Your task to perform on an android device: Search for sushi restaurants on Maps Image 0: 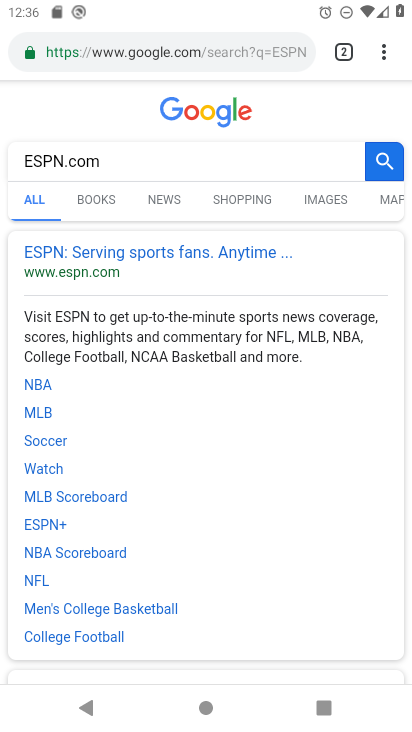
Step 0: press home button
Your task to perform on an android device: Search for sushi restaurants on Maps Image 1: 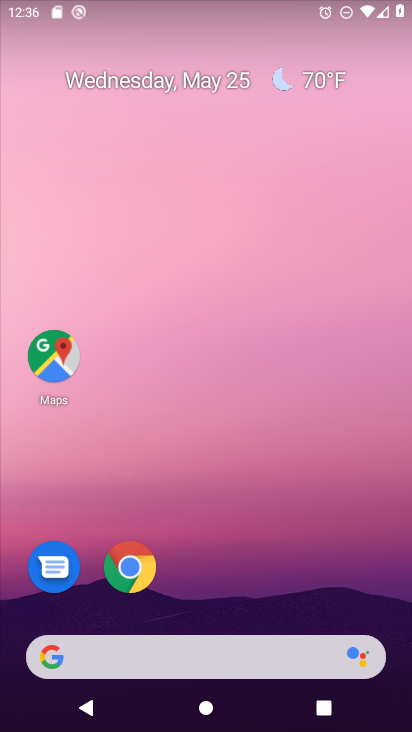
Step 1: click (58, 353)
Your task to perform on an android device: Search for sushi restaurants on Maps Image 2: 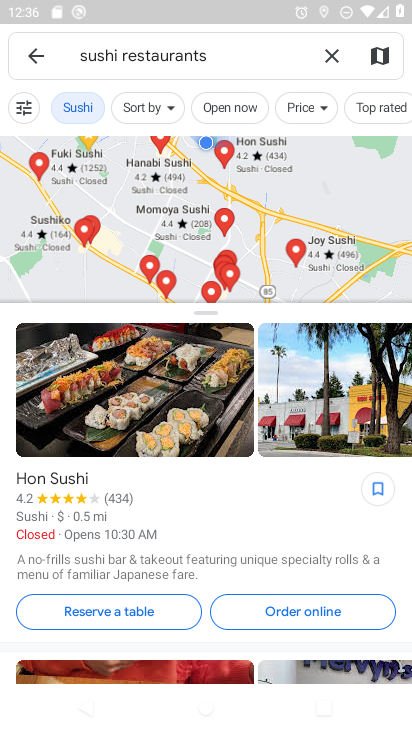
Step 2: click (325, 51)
Your task to perform on an android device: Search for sushi restaurants on Maps Image 3: 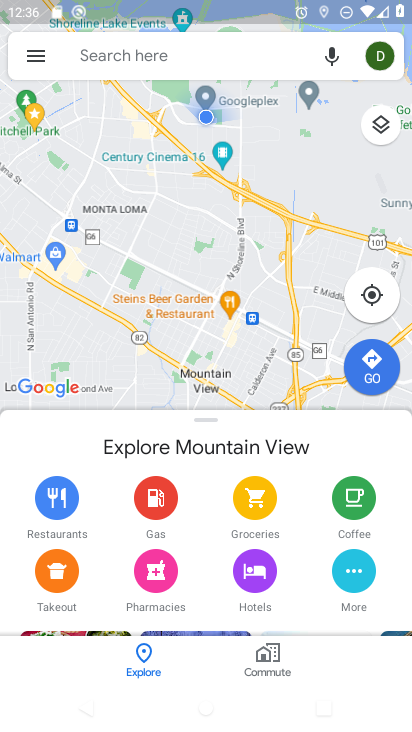
Step 3: click (94, 60)
Your task to perform on an android device: Search for sushi restaurants on Maps Image 4: 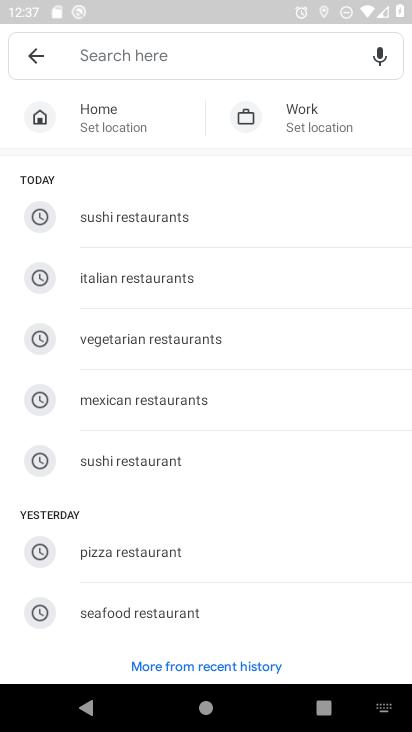
Step 4: type "sushi restaurants"
Your task to perform on an android device: Search for sushi restaurants on Maps Image 5: 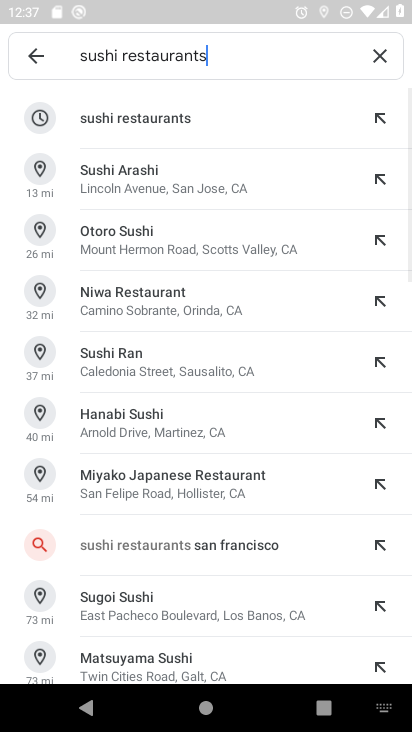
Step 5: click (121, 117)
Your task to perform on an android device: Search for sushi restaurants on Maps Image 6: 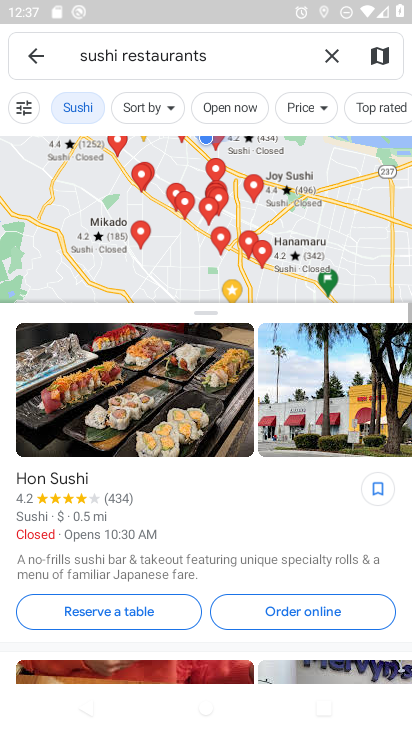
Step 6: task complete